Your task to perform on an android device: turn on sleep mode Image 0: 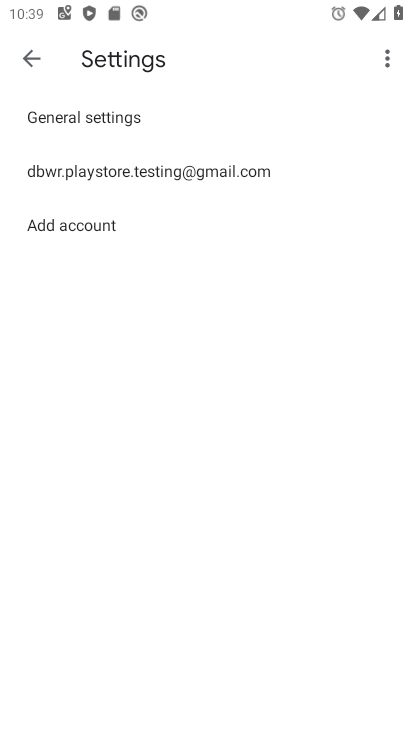
Step 0: press home button
Your task to perform on an android device: turn on sleep mode Image 1: 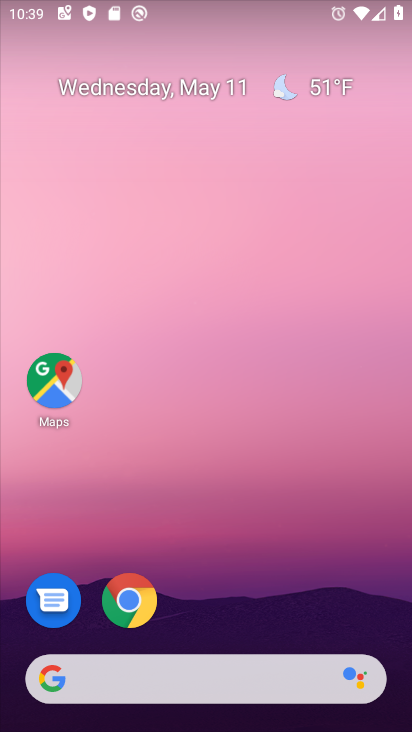
Step 1: drag from (218, 650) to (144, 63)
Your task to perform on an android device: turn on sleep mode Image 2: 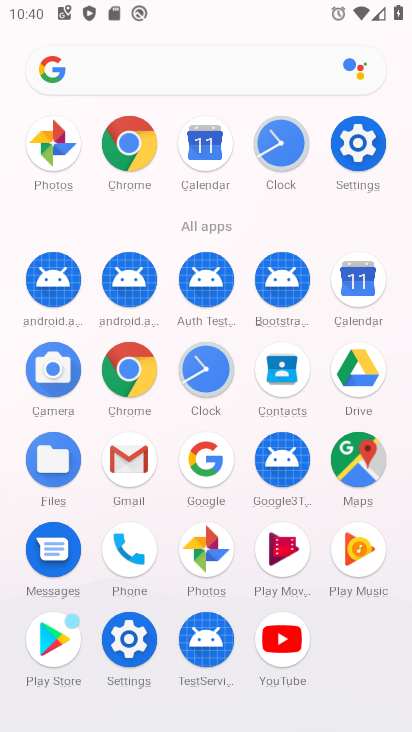
Step 2: click (139, 650)
Your task to perform on an android device: turn on sleep mode Image 3: 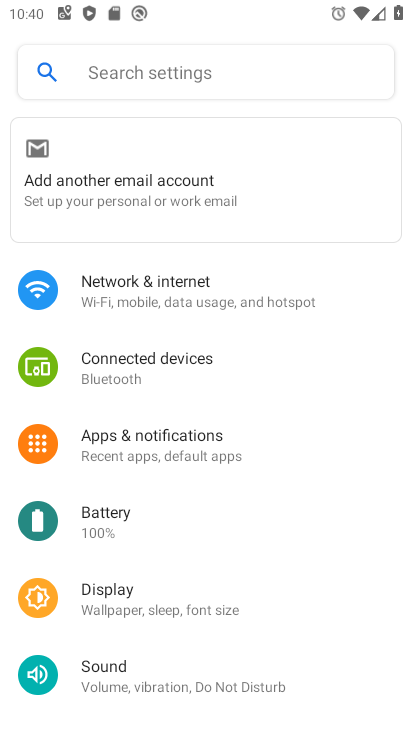
Step 3: click (140, 588)
Your task to perform on an android device: turn on sleep mode Image 4: 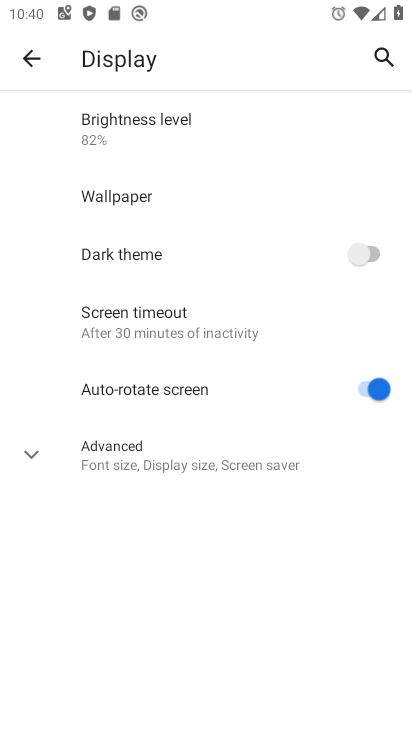
Step 4: click (114, 435)
Your task to perform on an android device: turn on sleep mode Image 5: 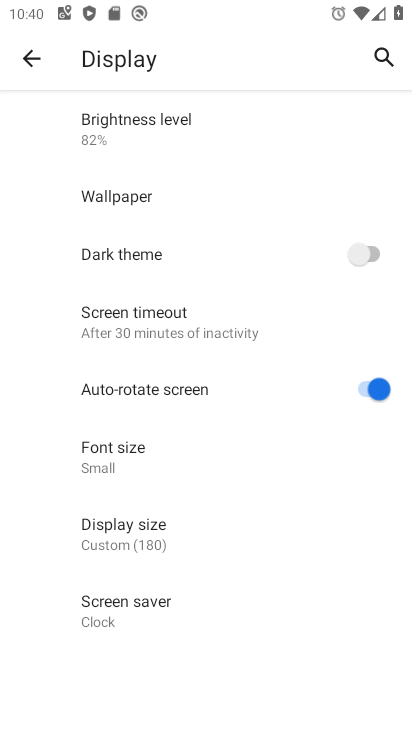
Step 5: task complete